Your task to perform on an android device: toggle data saver in the chrome app Image 0: 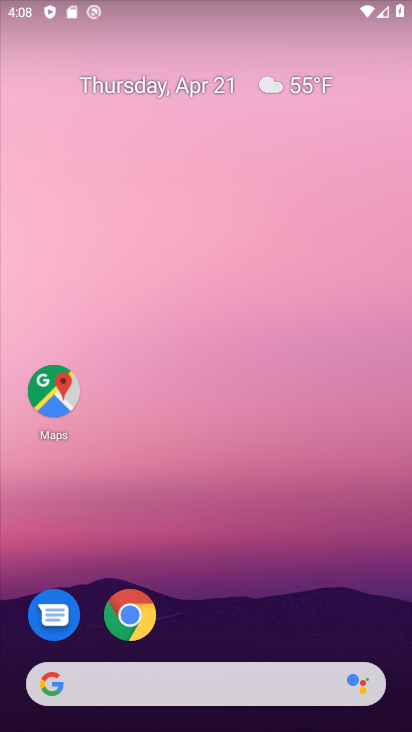
Step 0: click (134, 599)
Your task to perform on an android device: toggle data saver in the chrome app Image 1: 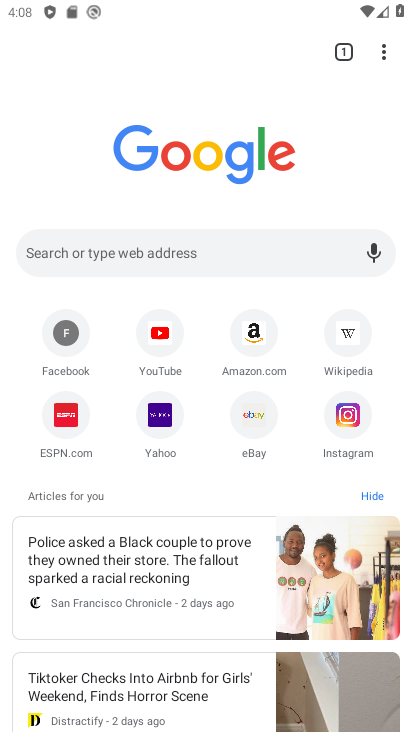
Step 1: click (382, 55)
Your task to perform on an android device: toggle data saver in the chrome app Image 2: 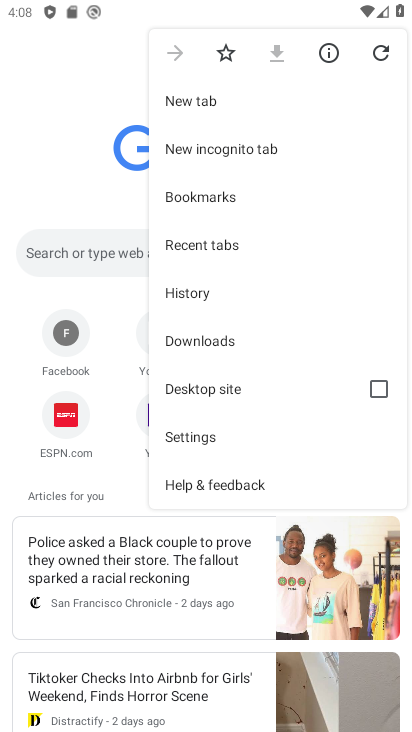
Step 2: click (213, 430)
Your task to perform on an android device: toggle data saver in the chrome app Image 3: 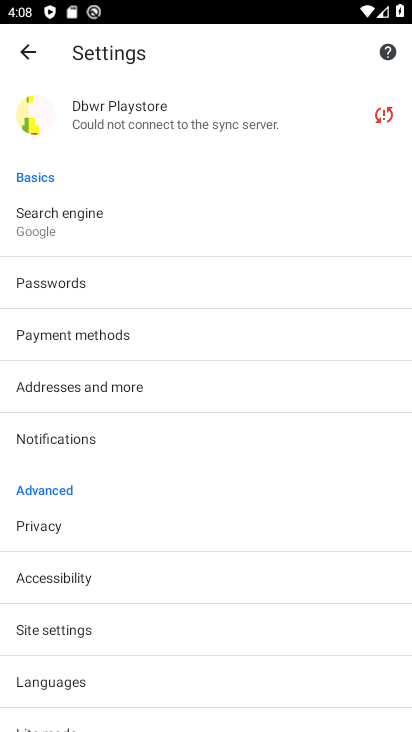
Step 3: drag from (147, 658) to (193, 320)
Your task to perform on an android device: toggle data saver in the chrome app Image 4: 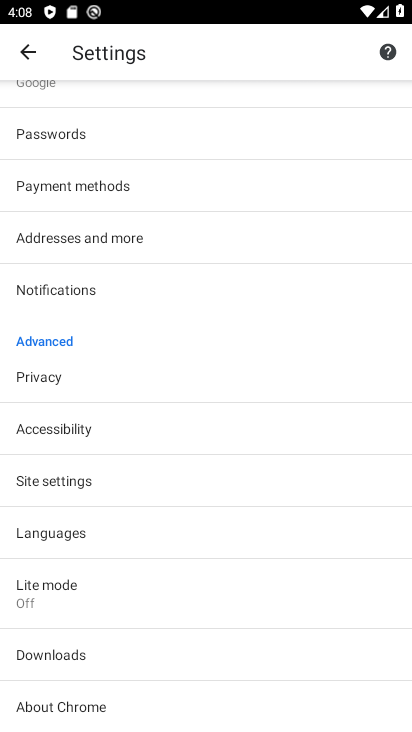
Step 4: drag from (124, 481) to (119, 603)
Your task to perform on an android device: toggle data saver in the chrome app Image 5: 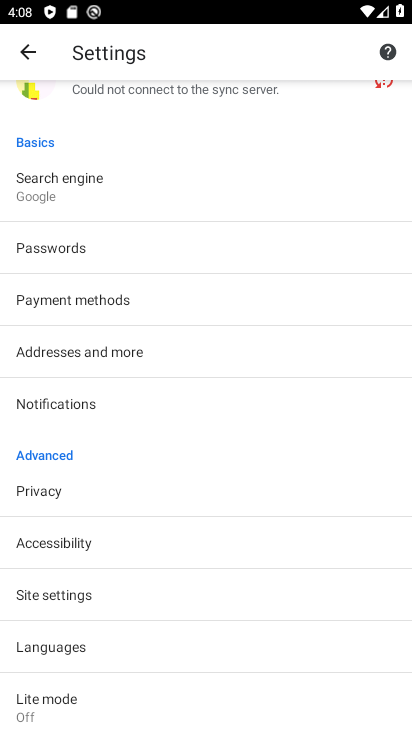
Step 5: click (87, 700)
Your task to perform on an android device: toggle data saver in the chrome app Image 6: 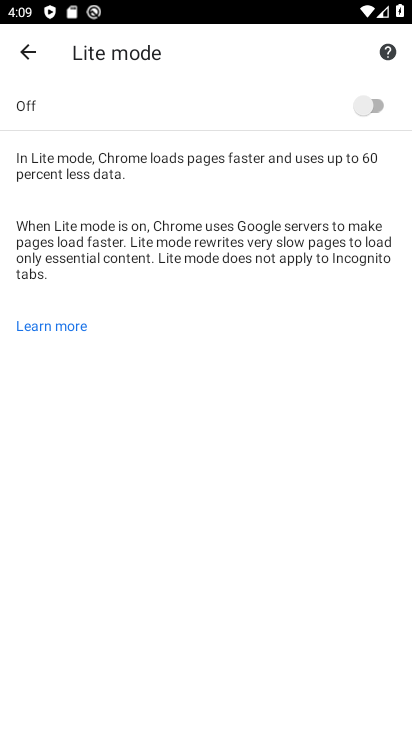
Step 6: click (381, 103)
Your task to perform on an android device: toggle data saver in the chrome app Image 7: 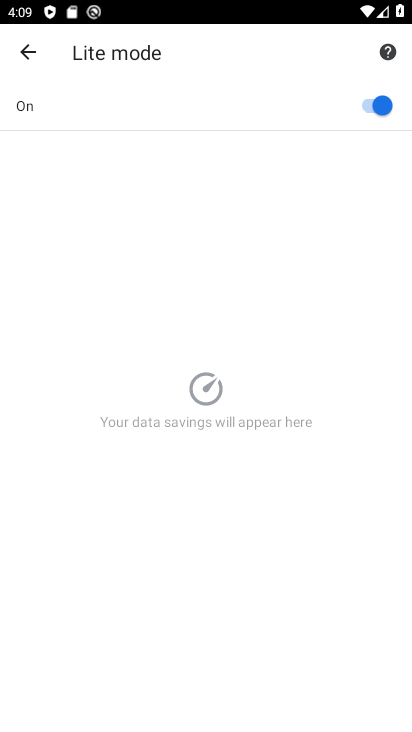
Step 7: task complete